Your task to perform on an android device: Open Android settings Image 0: 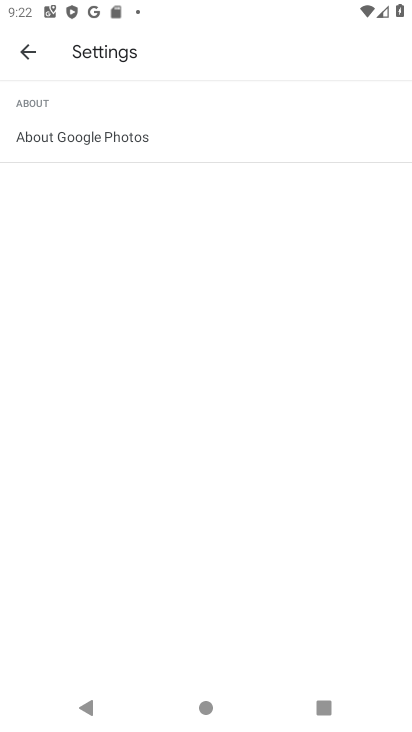
Step 0: press home button
Your task to perform on an android device: Open Android settings Image 1: 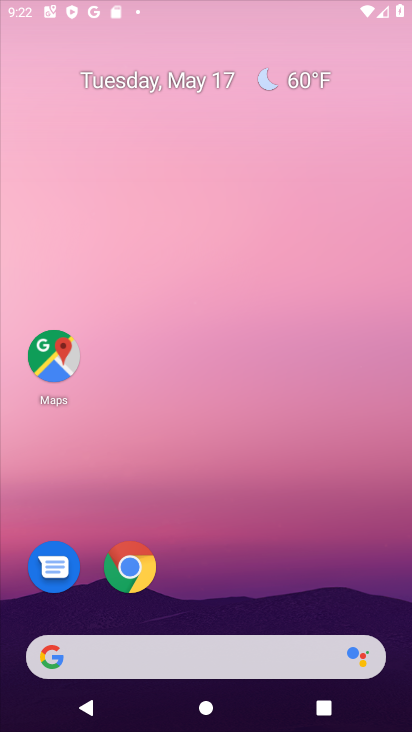
Step 1: drag from (348, 605) to (298, 55)
Your task to perform on an android device: Open Android settings Image 2: 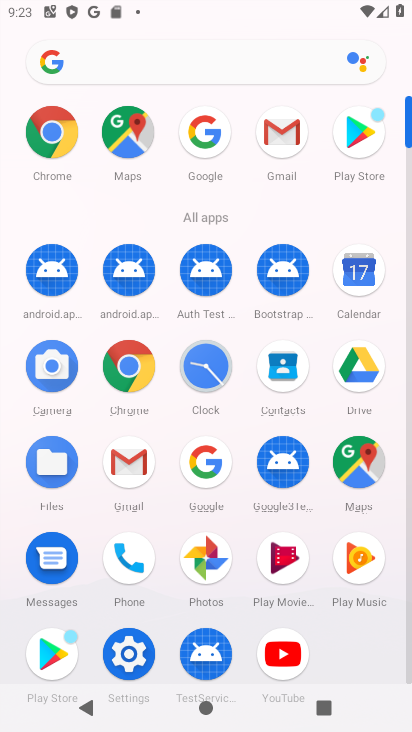
Step 2: click (129, 648)
Your task to perform on an android device: Open Android settings Image 3: 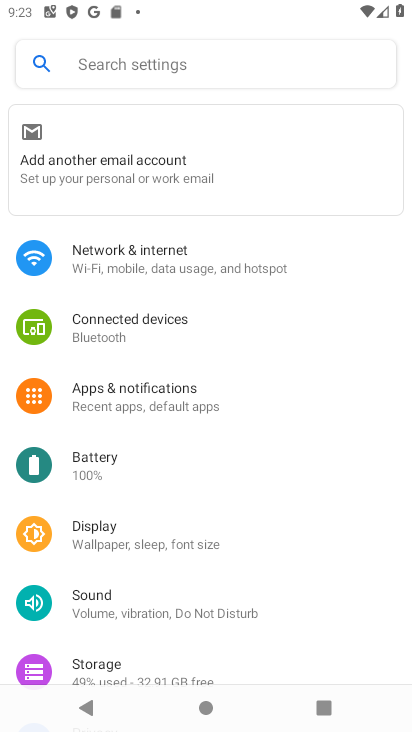
Step 3: drag from (129, 645) to (200, 222)
Your task to perform on an android device: Open Android settings Image 4: 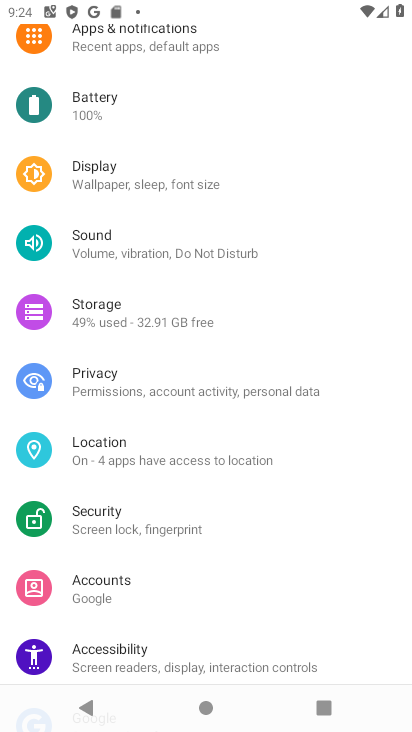
Step 4: drag from (146, 564) to (186, 80)
Your task to perform on an android device: Open Android settings Image 5: 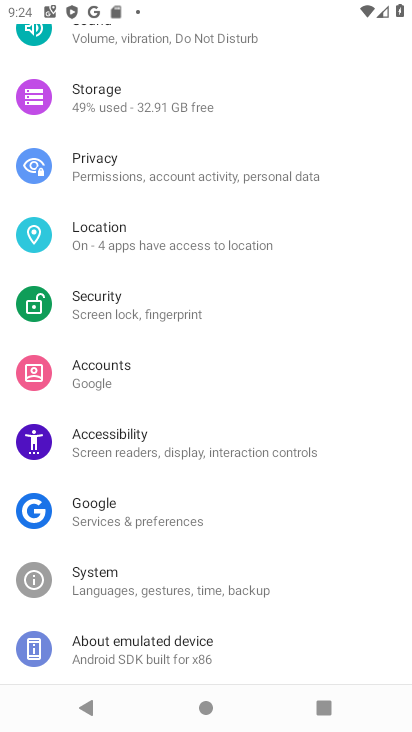
Step 5: click (147, 629)
Your task to perform on an android device: Open Android settings Image 6: 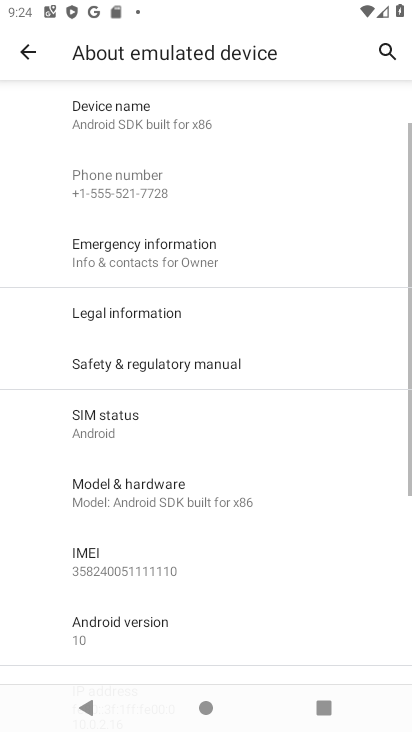
Step 6: click (146, 624)
Your task to perform on an android device: Open Android settings Image 7: 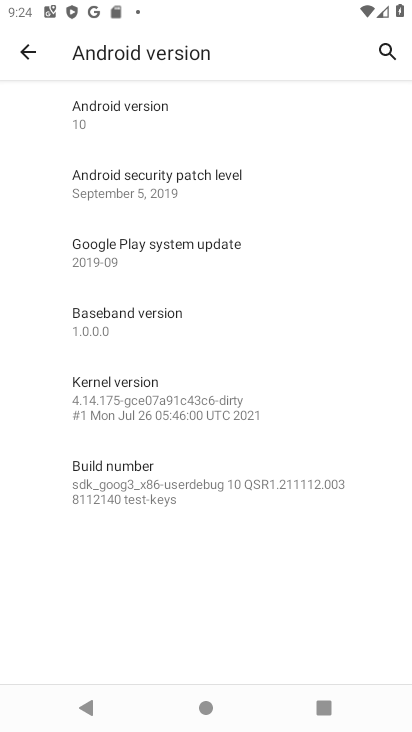
Step 7: task complete